Your task to perform on an android device: snooze an email in the gmail app Image 0: 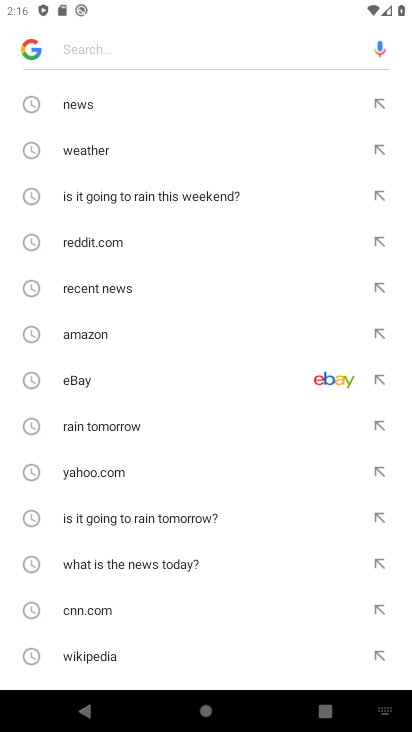
Step 0: press home button
Your task to perform on an android device: snooze an email in the gmail app Image 1: 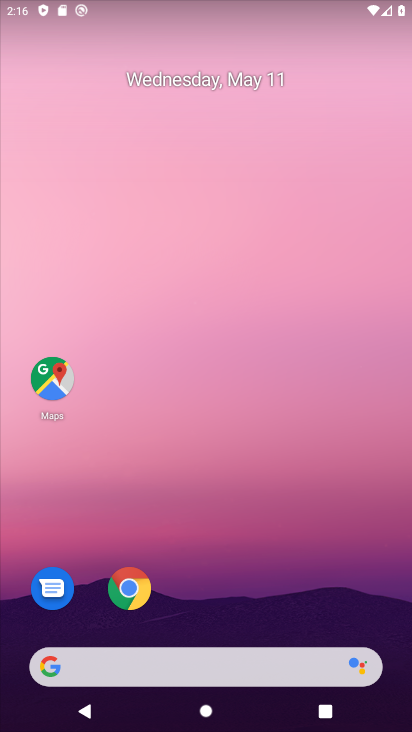
Step 1: drag from (215, 599) to (229, 98)
Your task to perform on an android device: snooze an email in the gmail app Image 2: 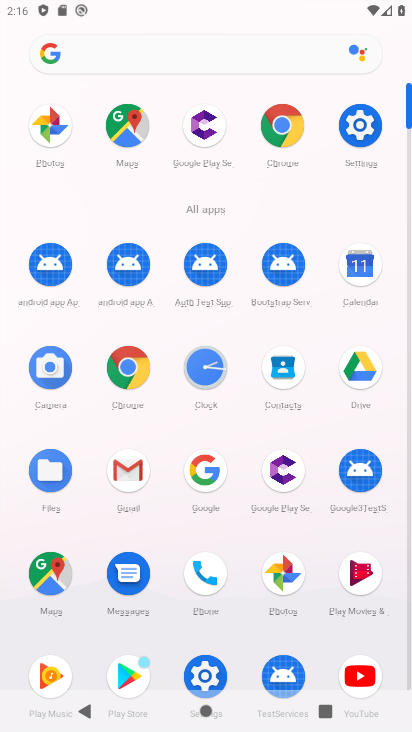
Step 2: click (190, 365)
Your task to perform on an android device: snooze an email in the gmail app Image 3: 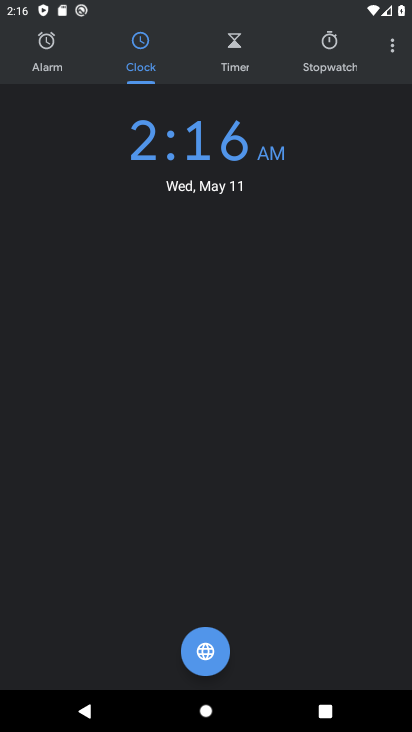
Step 3: press back button
Your task to perform on an android device: snooze an email in the gmail app Image 4: 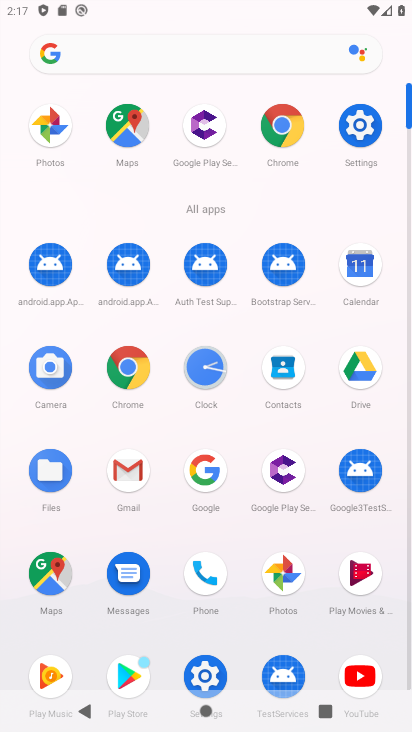
Step 4: click (120, 472)
Your task to perform on an android device: snooze an email in the gmail app Image 5: 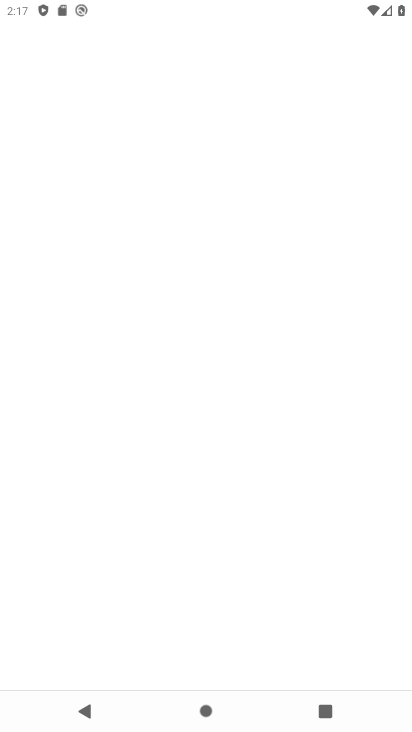
Step 5: click (116, 465)
Your task to perform on an android device: snooze an email in the gmail app Image 6: 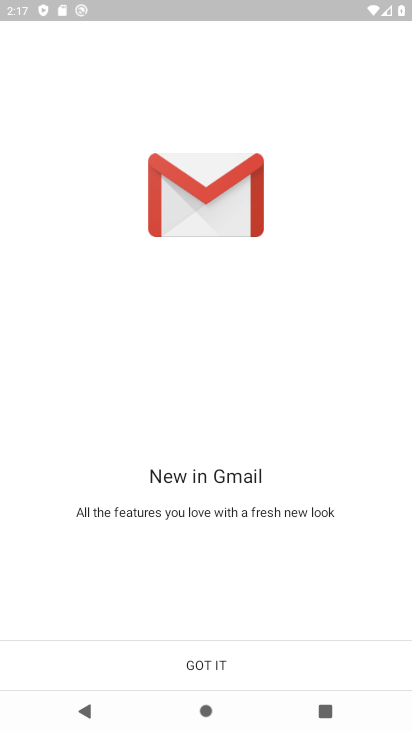
Step 6: click (208, 657)
Your task to perform on an android device: snooze an email in the gmail app Image 7: 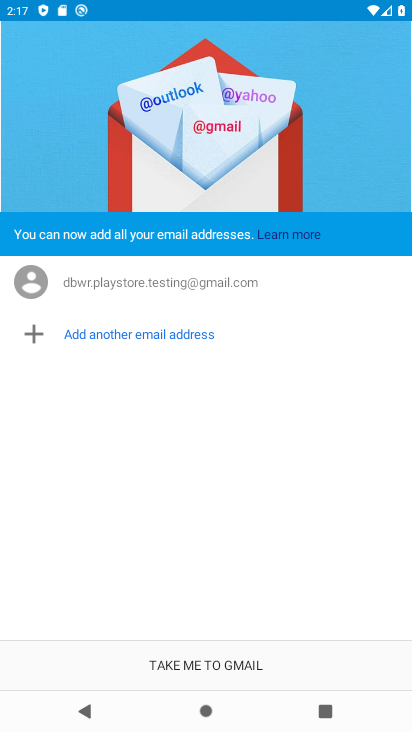
Step 7: click (208, 657)
Your task to perform on an android device: snooze an email in the gmail app Image 8: 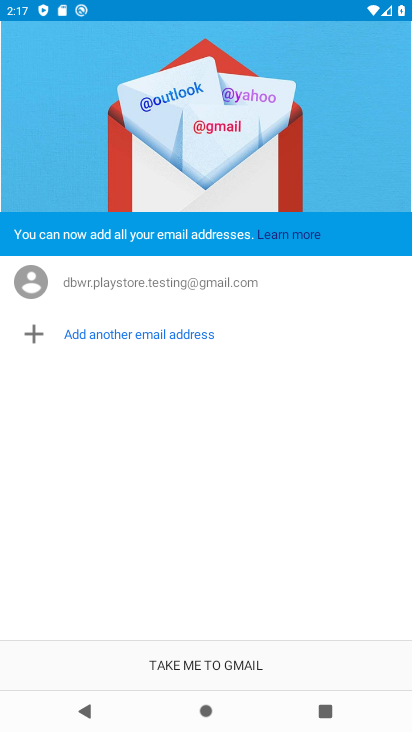
Step 8: click (208, 657)
Your task to perform on an android device: snooze an email in the gmail app Image 9: 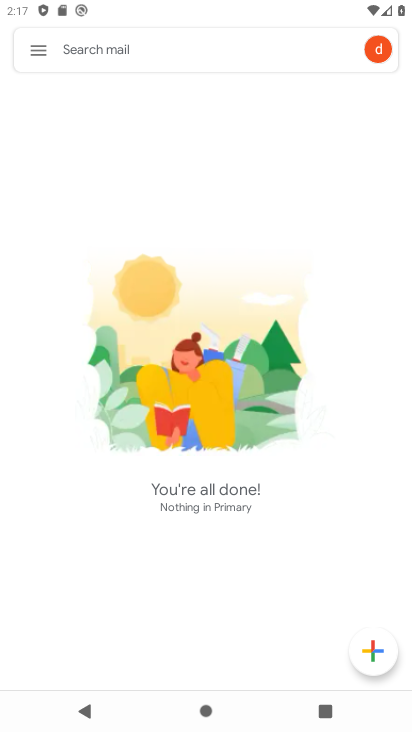
Step 9: task complete